Your task to perform on an android device: Set the phone to "Do not disturb". Image 0: 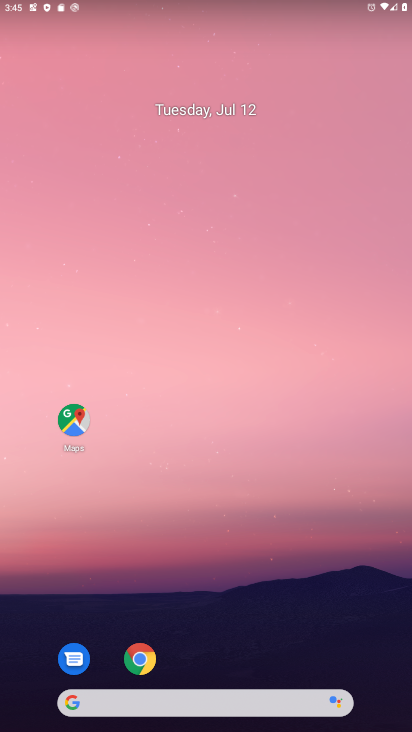
Step 0: drag from (191, 644) to (191, 157)
Your task to perform on an android device: Set the phone to "Do not disturb". Image 1: 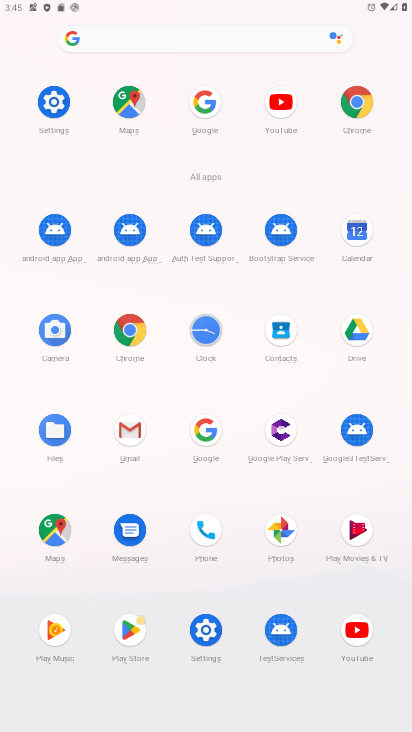
Step 1: click (55, 105)
Your task to perform on an android device: Set the phone to "Do not disturb". Image 2: 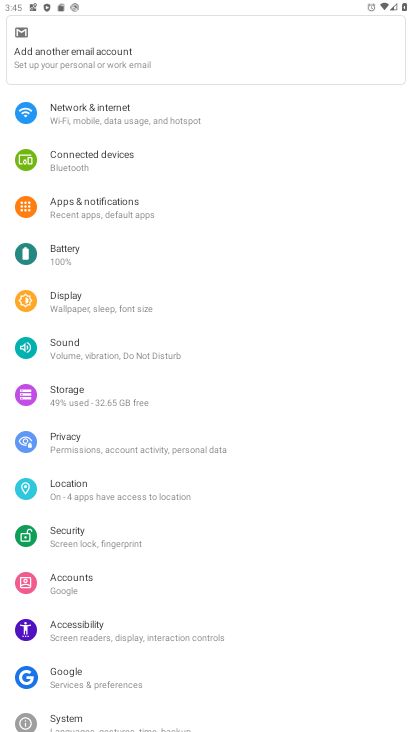
Step 2: click (95, 353)
Your task to perform on an android device: Set the phone to "Do not disturb". Image 3: 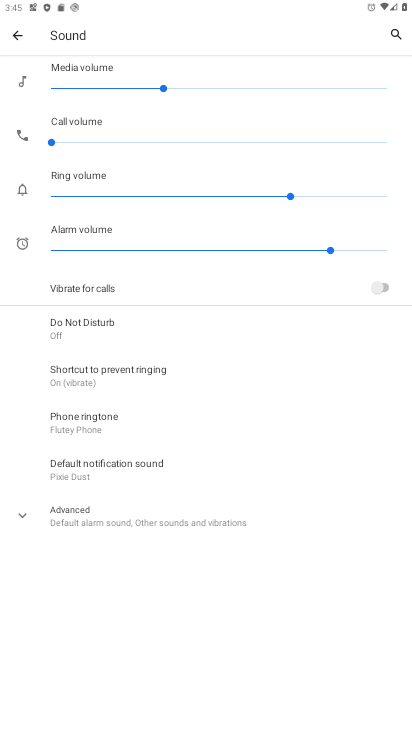
Step 3: click (89, 329)
Your task to perform on an android device: Set the phone to "Do not disturb". Image 4: 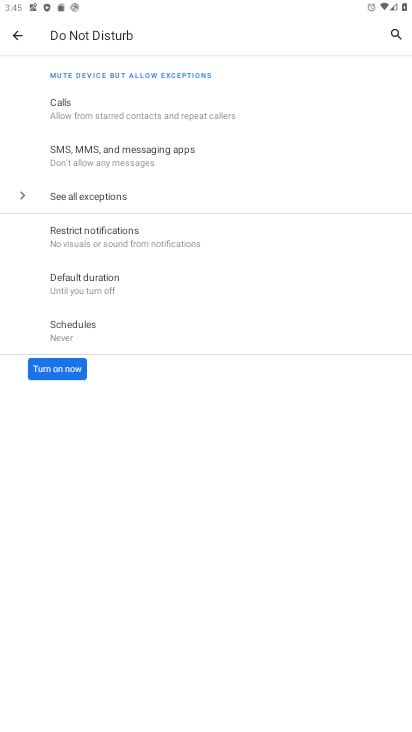
Step 4: click (53, 366)
Your task to perform on an android device: Set the phone to "Do not disturb". Image 5: 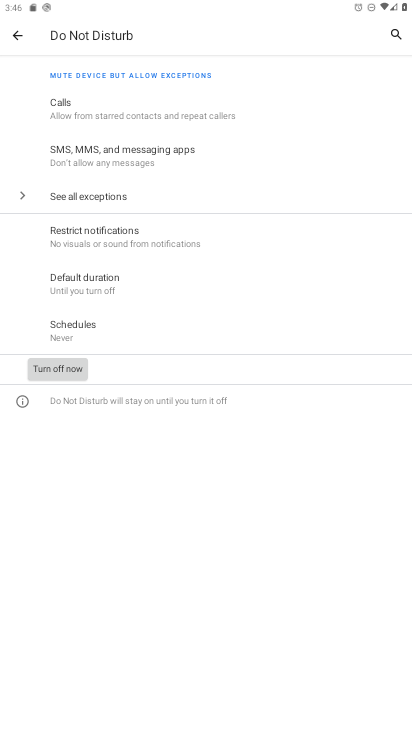
Step 5: task complete